Your task to perform on an android device: turn on wifi Image 0: 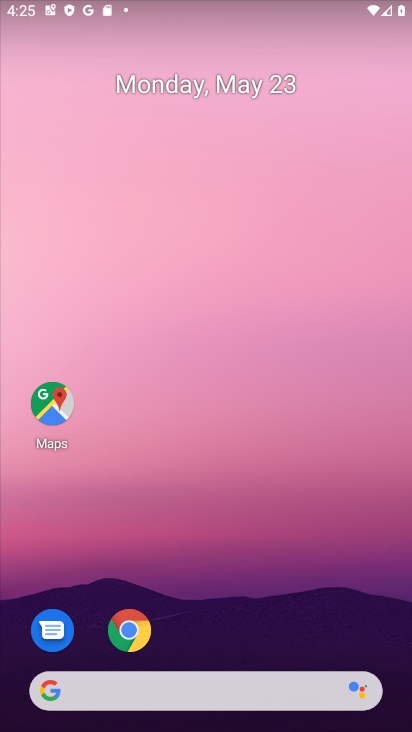
Step 0: press home button
Your task to perform on an android device: turn on wifi Image 1: 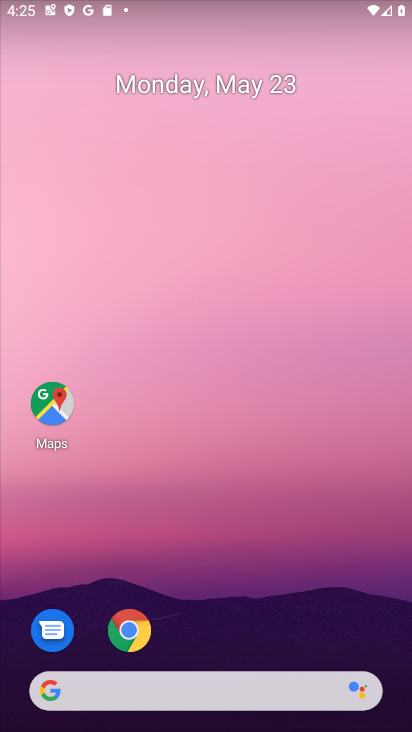
Step 1: drag from (221, 648) to (231, 120)
Your task to perform on an android device: turn on wifi Image 2: 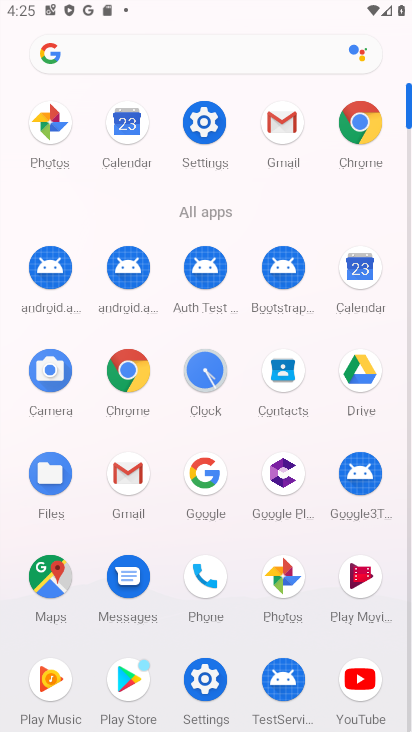
Step 2: click (198, 116)
Your task to perform on an android device: turn on wifi Image 3: 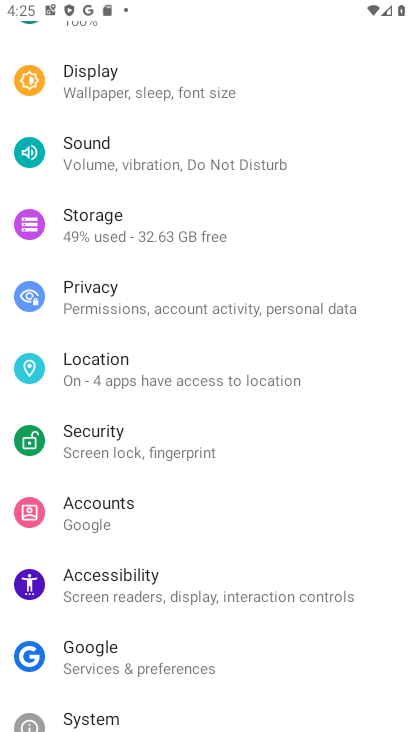
Step 3: drag from (175, 125) to (217, 704)
Your task to perform on an android device: turn on wifi Image 4: 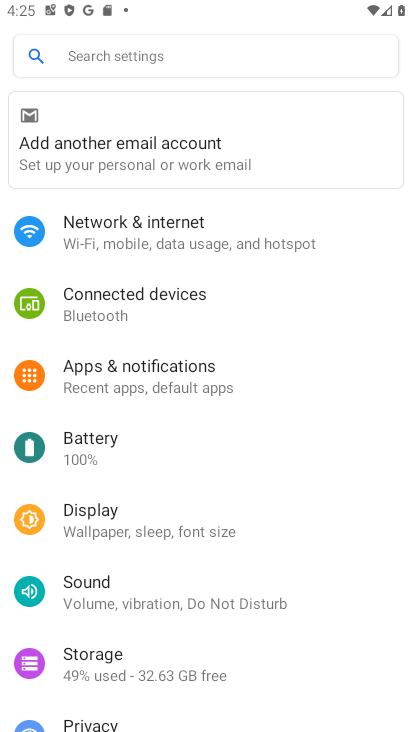
Step 4: drag from (145, 107) to (155, 651)
Your task to perform on an android device: turn on wifi Image 5: 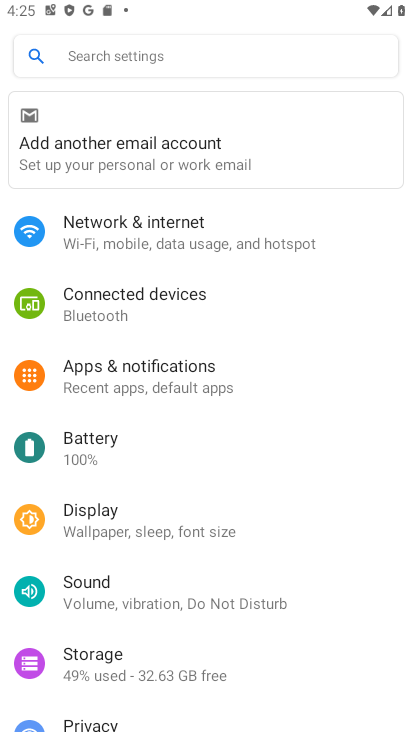
Step 5: click (172, 229)
Your task to perform on an android device: turn on wifi Image 6: 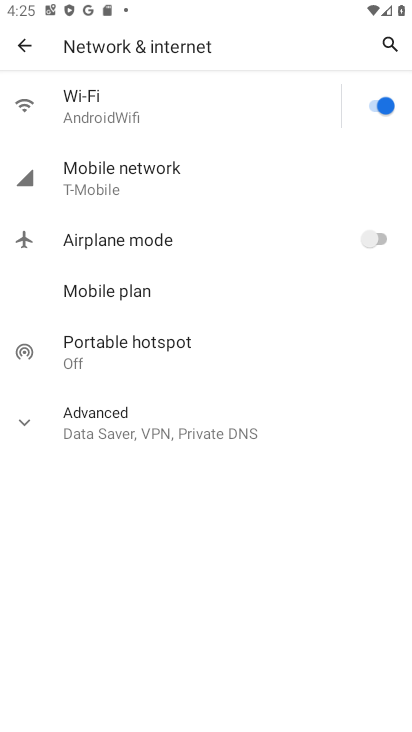
Step 6: task complete